Your task to perform on an android device: What's the weather like inToronto? Image 0: 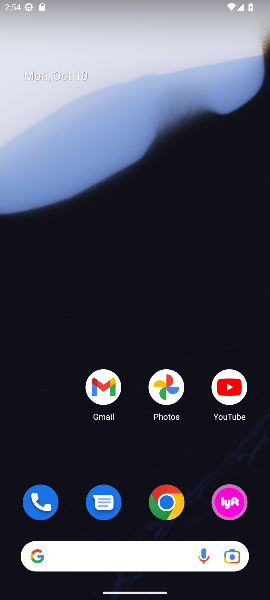
Step 0: click (157, 499)
Your task to perform on an android device: What's the weather like inToronto? Image 1: 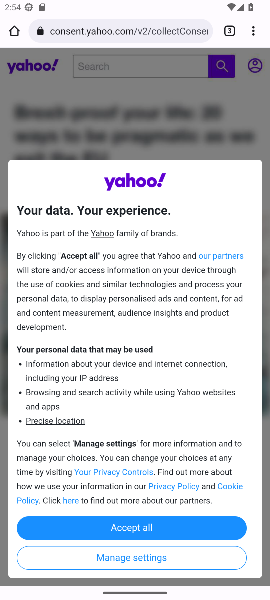
Step 1: click (67, 31)
Your task to perform on an android device: What's the weather like inToronto? Image 2: 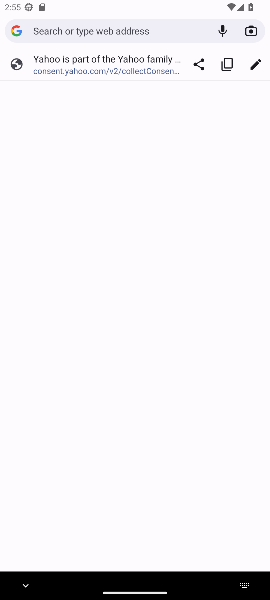
Step 2: type "weather in toronto ?"
Your task to perform on an android device: What's the weather like inToronto? Image 3: 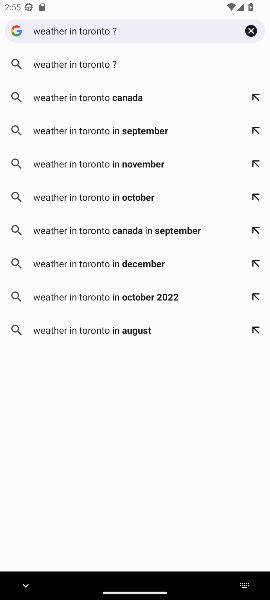
Step 3: click (78, 69)
Your task to perform on an android device: What's the weather like inToronto? Image 4: 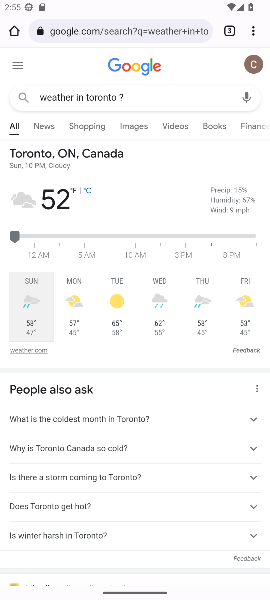
Step 4: task complete